Your task to perform on an android device: Open the calendar and show me this week's events Image 0: 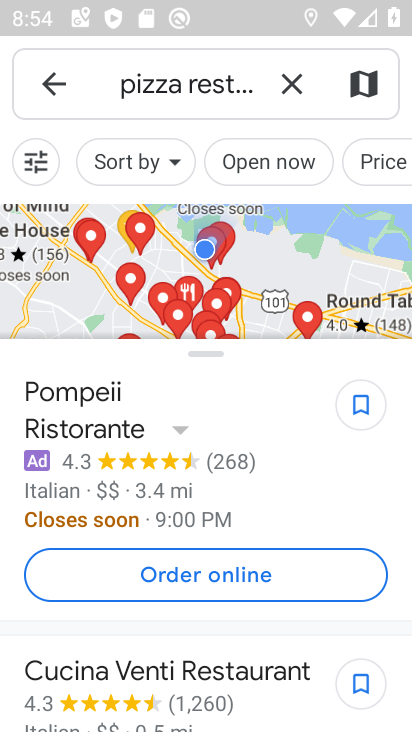
Step 0: press home button
Your task to perform on an android device: Open the calendar and show me this week's events Image 1: 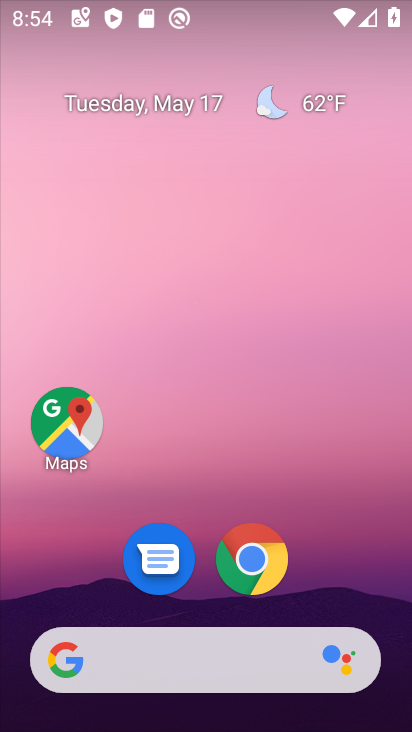
Step 1: drag from (57, 243) to (150, 216)
Your task to perform on an android device: Open the calendar and show me this week's events Image 2: 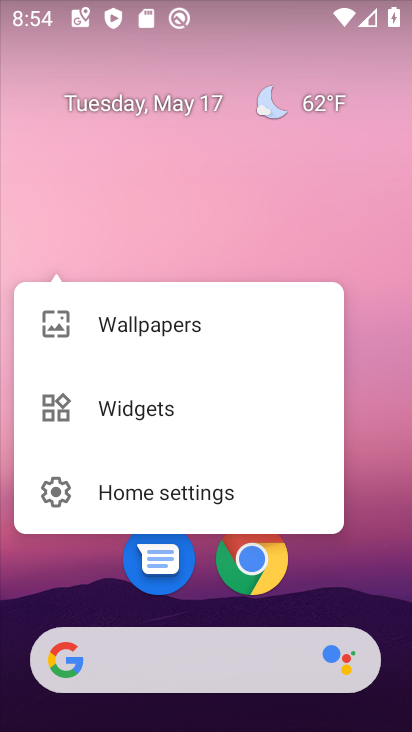
Step 2: drag from (179, 655) to (167, 327)
Your task to perform on an android device: Open the calendar and show me this week's events Image 3: 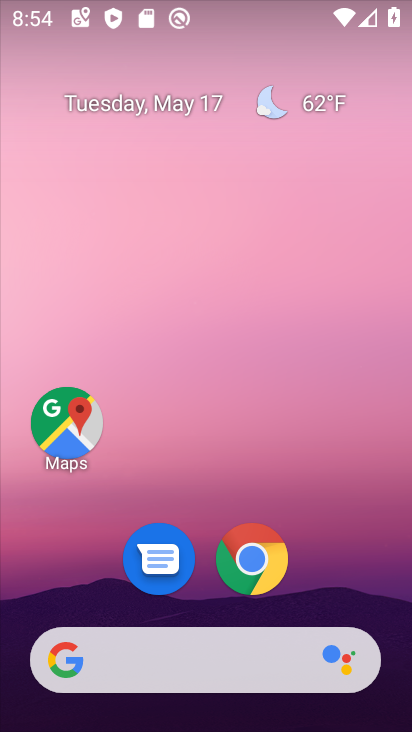
Step 3: drag from (225, 668) to (246, 284)
Your task to perform on an android device: Open the calendar and show me this week's events Image 4: 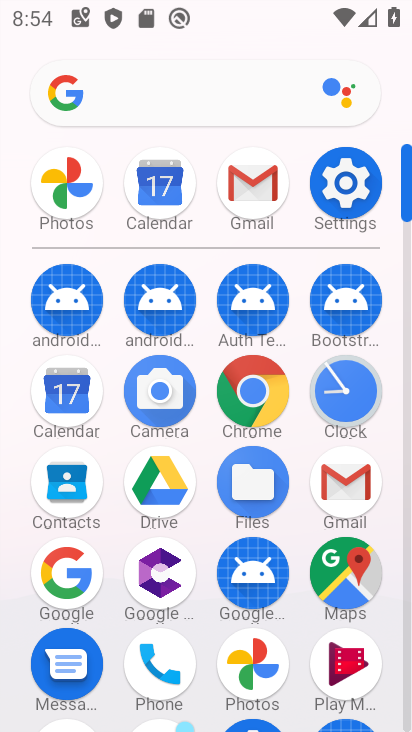
Step 4: click (69, 395)
Your task to perform on an android device: Open the calendar and show me this week's events Image 5: 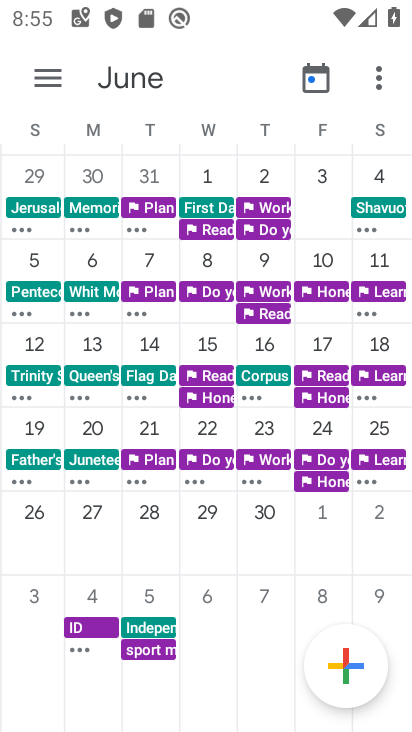
Step 5: task complete